Your task to perform on an android device: change the clock style Image 0: 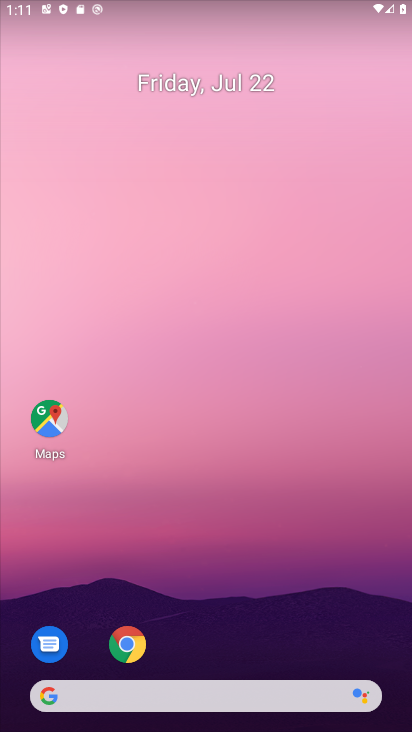
Step 0: press home button
Your task to perform on an android device: change the clock style Image 1: 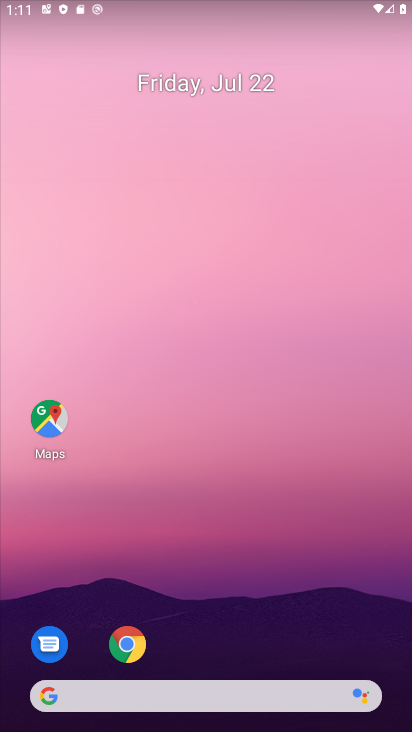
Step 1: drag from (218, 298) to (232, 48)
Your task to perform on an android device: change the clock style Image 2: 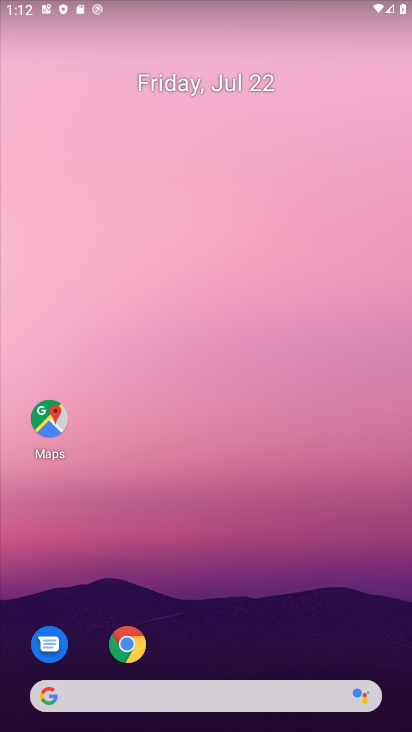
Step 2: drag from (212, 655) to (204, 67)
Your task to perform on an android device: change the clock style Image 3: 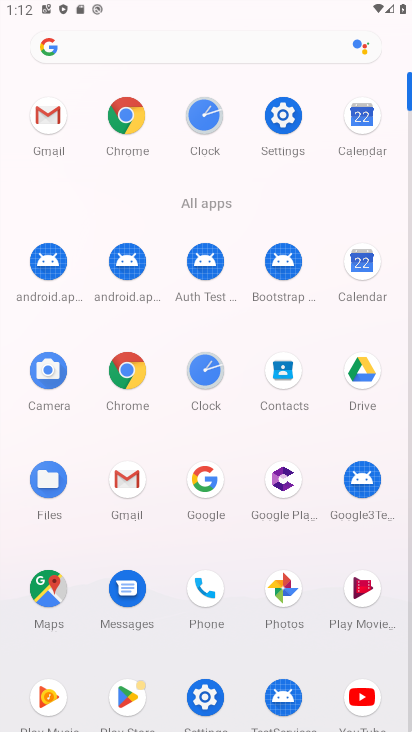
Step 3: click (204, 361)
Your task to perform on an android device: change the clock style Image 4: 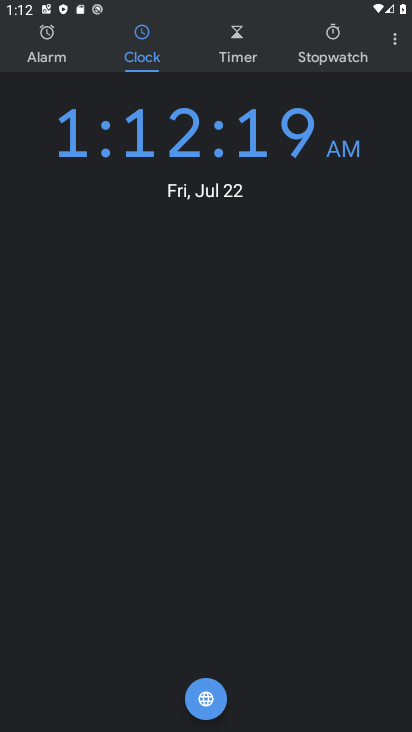
Step 4: click (400, 37)
Your task to perform on an android device: change the clock style Image 5: 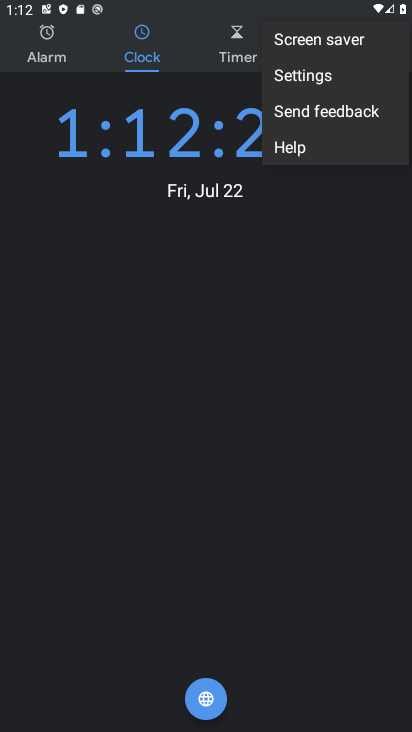
Step 5: click (336, 75)
Your task to perform on an android device: change the clock style Image 6: 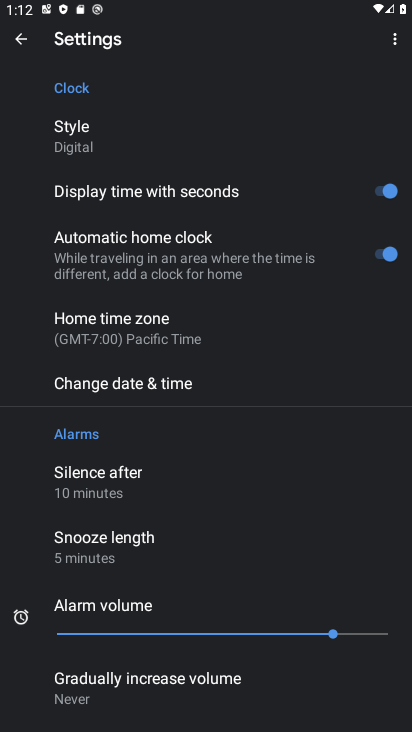
Step 6: click (93, 126)
Your task to perform on an android device: change the clock style Image 7: 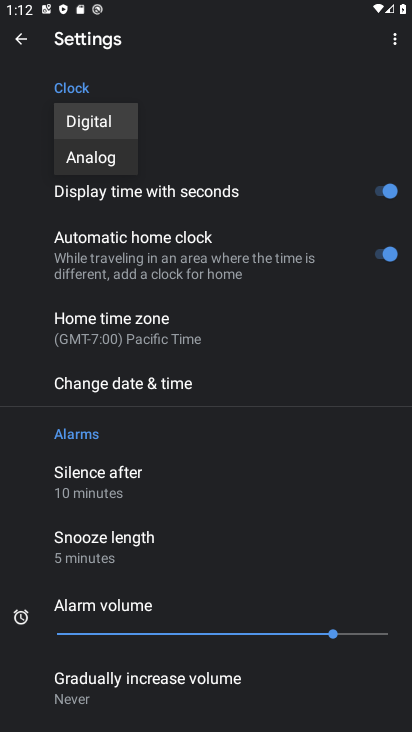
Step 7: click (112, 163)
Your task to perform on an android device: change the clock style Image 8: 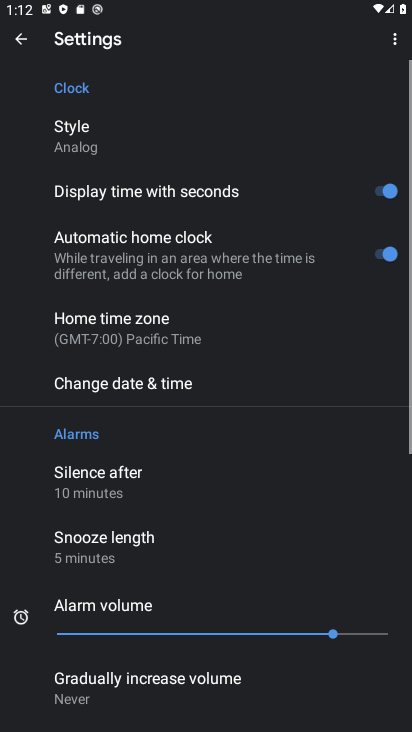
Step 8: task complete